Your task to perform on an android device: delete the emails in spam in the gmail app Image 0: 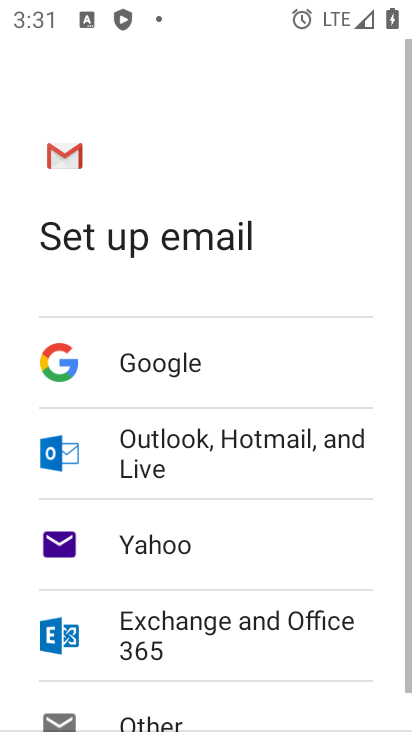
Step 0: press home button
Your task to perform on an android device: delete the emails in spam in the gmail app Image 1: 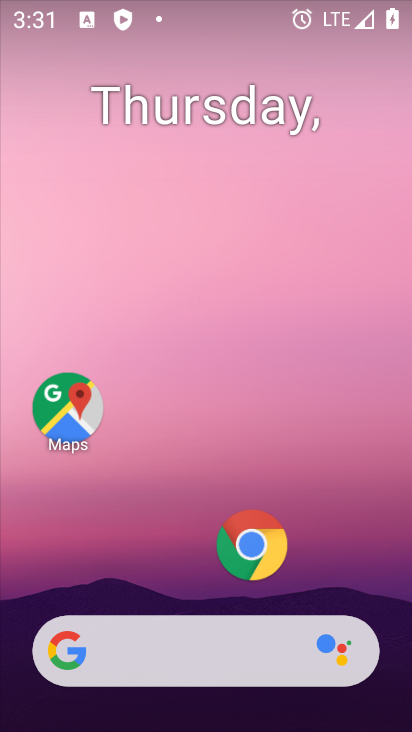
Step 1: drag from (323, 639) to (408, 475)
Your task to perform on an android device: delete the emails in spam in the gmail app Image 2: 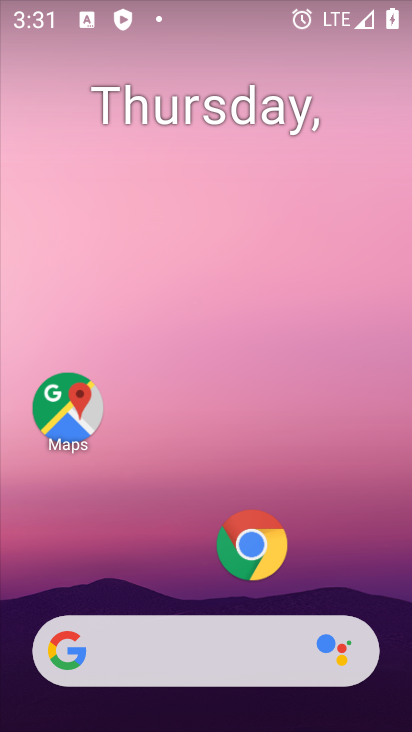
Step 2: click (335, 479)
Your task to perform on an android device: delete the emails in spam in the gmail app Image 3: 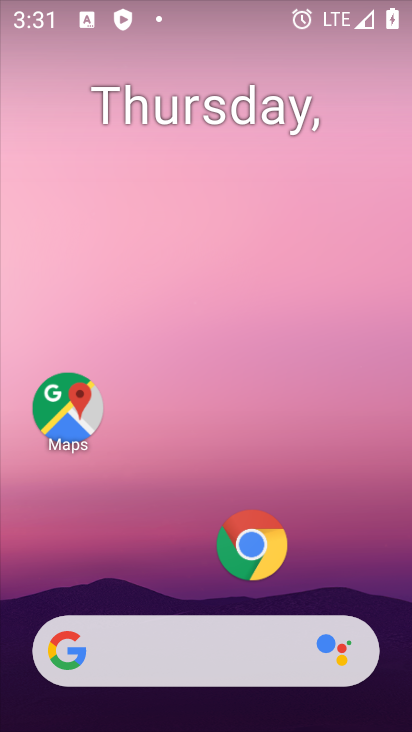
Step 3: drag from (325, 660) to (297, 28)
Your task to perform on an android device: delete the emails in spam in the gmail app Image 4: 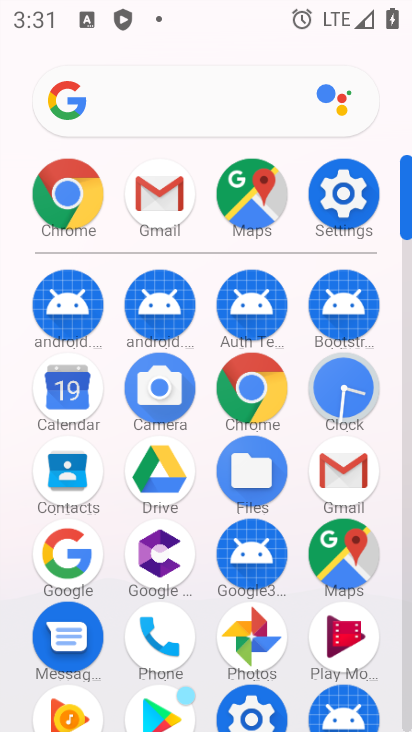
Step 4: click (354, 466)
Your task to perform on an android device: delete the emails in spam in the gmail app Image 5: 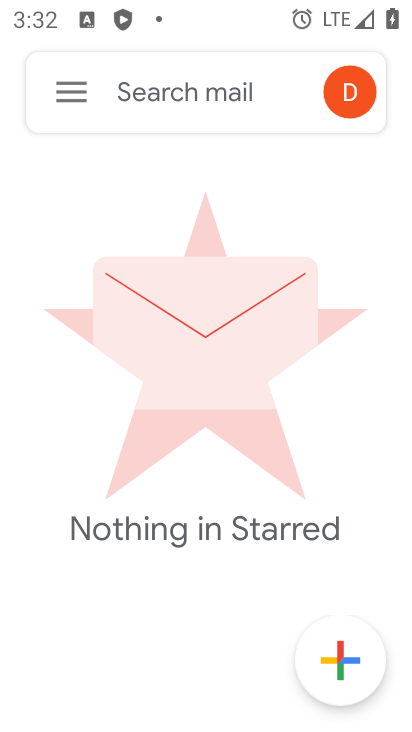
Step 5: task complete